Your task to perform on an android device: turn vacation reply on in the gmail app Image 0: 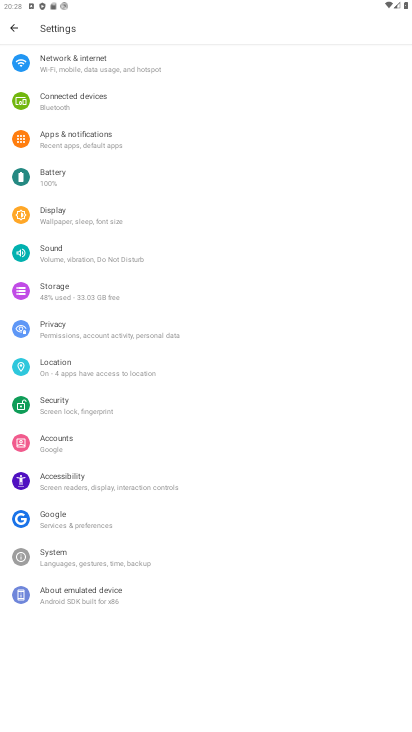
Step 0: press home button
Your task to perform on an android device: turn vacation reply on in the gmail app Image 1: 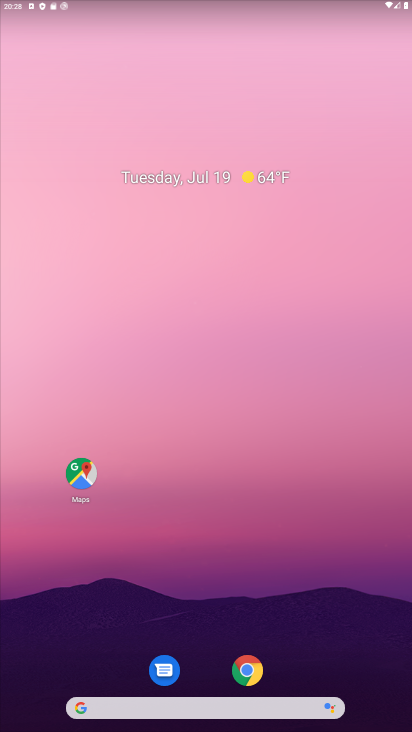
Step 1: drag from (212, 726) to (170, 109)
Your task to perform on an android device: turn vacation reply on in the gmail app Image 2: 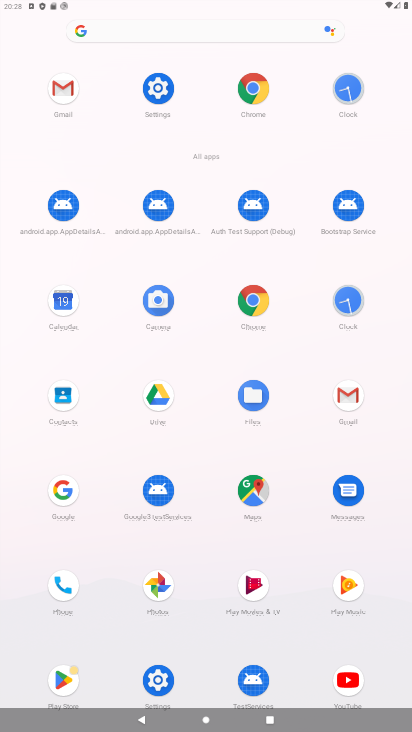
Step 2: click (62, 99)
Your task to perform on an android device: turn vacation reply on in the gmail app Image 3: 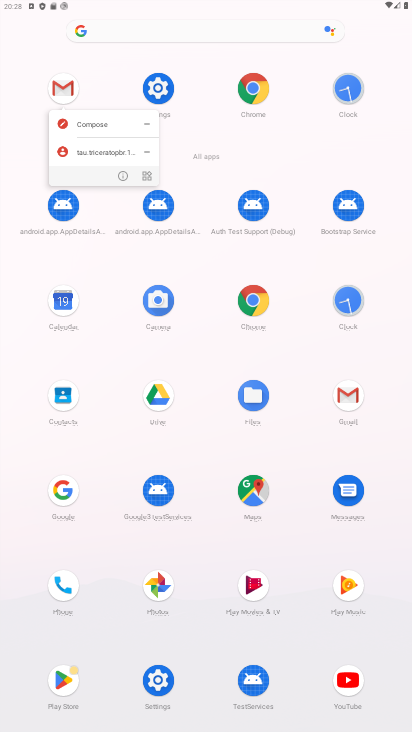
Step 3: click (65, 97)
Your task to perform on an android device: turn vacation reply on in the gmail app Image 4: 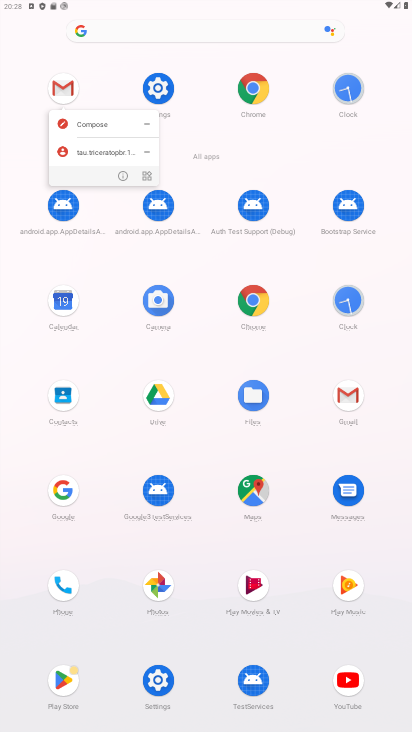
Step 4: click (65, 97)
Your task to perform on an android device: turn vacation reply on in the gmail app Image 5: 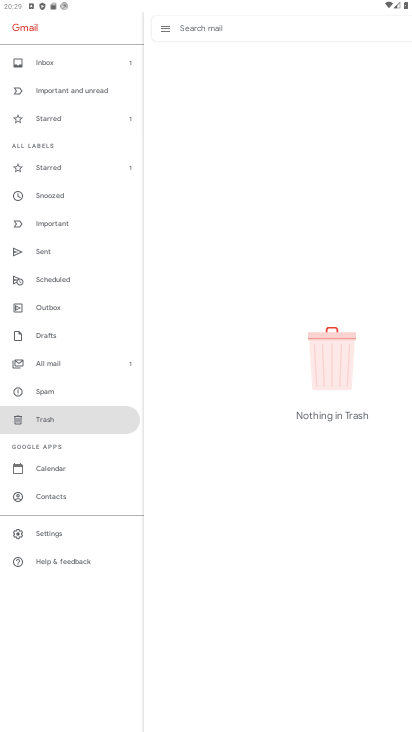
Step 5: click (56, 535)
Your task to perform on an android device: turn vacation reply on in the gmail app Image 6: 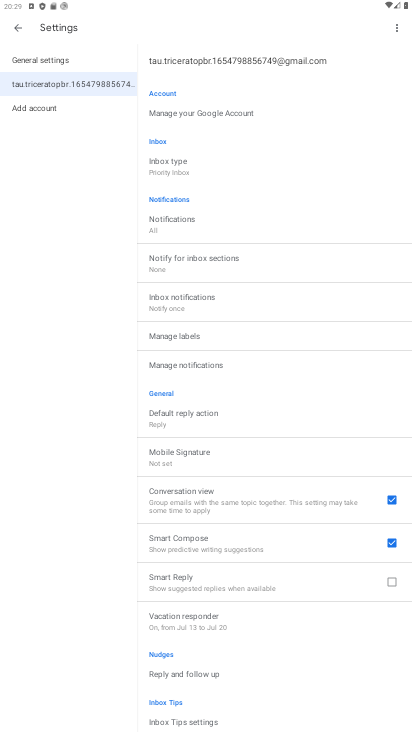
Step 6: click (205, 633)
Your task to perform on an android device: turn vacation reply on in the gmail app Image 7: 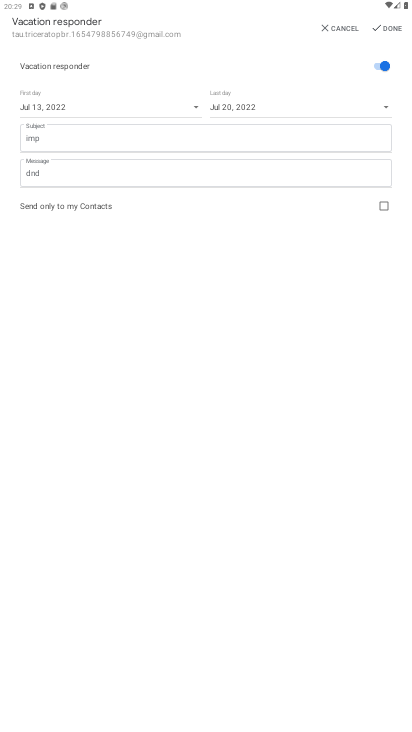
Step 7: click (390, 24)
Your task to perform on an android device: turn vacation reply on in the gmail app Image 8: 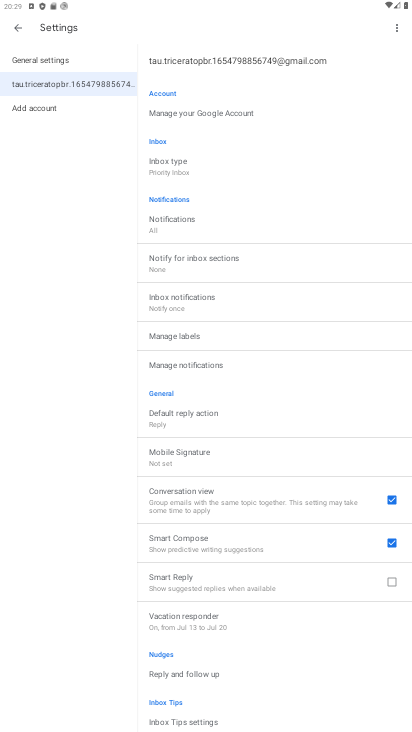
Step 8: task complete